Your task to perform on an android device: set the timer Image 0: 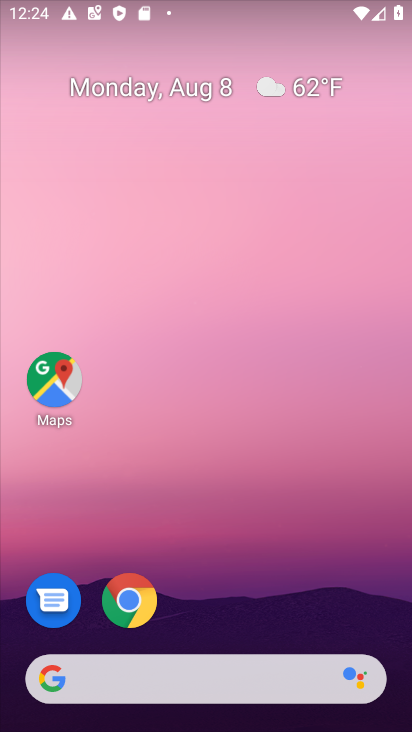
Step 0: drag from (229, 582) to (229, 201)
Your task to perform on an android device: set the timer Image 1: 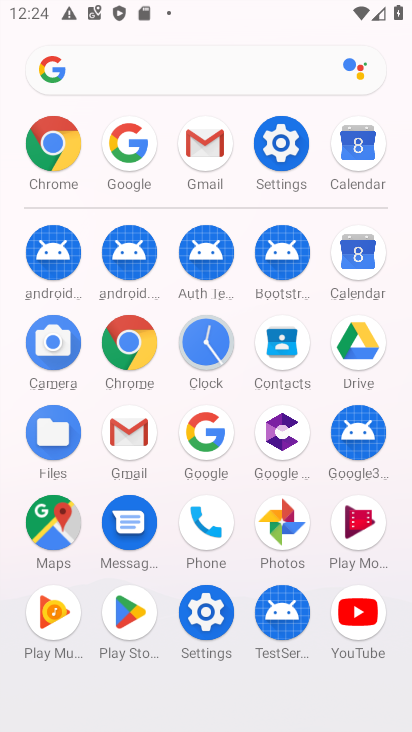
Step 1: click (211, 356)
Your task to perform on an android device: set the timer Image 2: 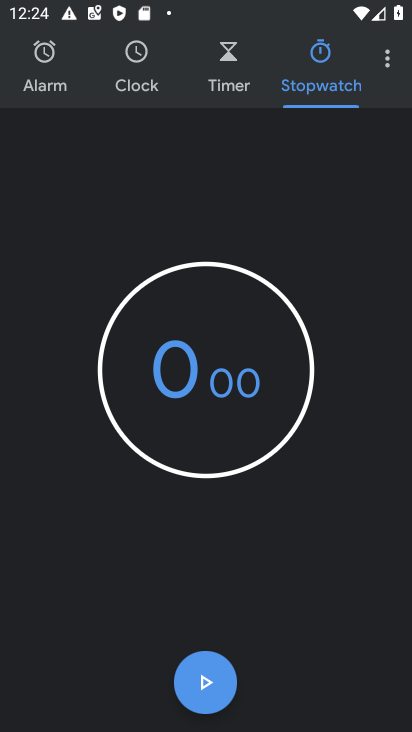
Step 2: click (243, 82)
Your task to perform on an android device: set the timer Image 3: 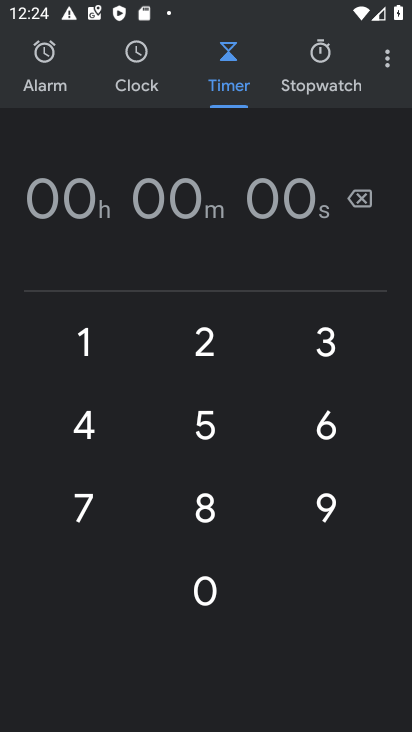
Step 3: type "11"
Your task to perform on an android device: set the timer Image 4: 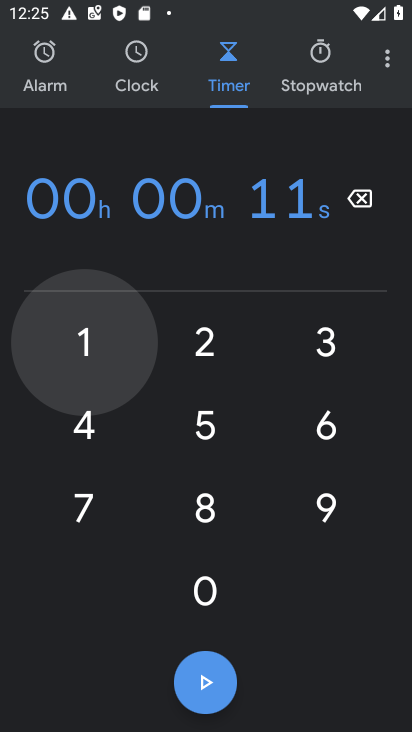
Step 4: click (189, 697)
Your task to perform on an android device: set the timer Image 5: 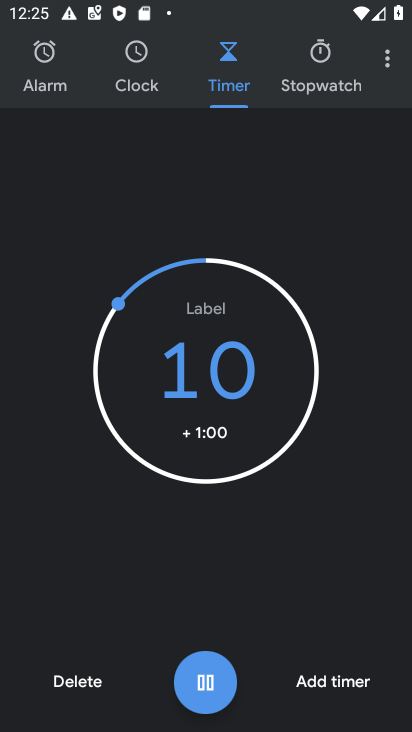
Step 5: task complete